Your task to perform on an android device: turn on wifi Image 0: 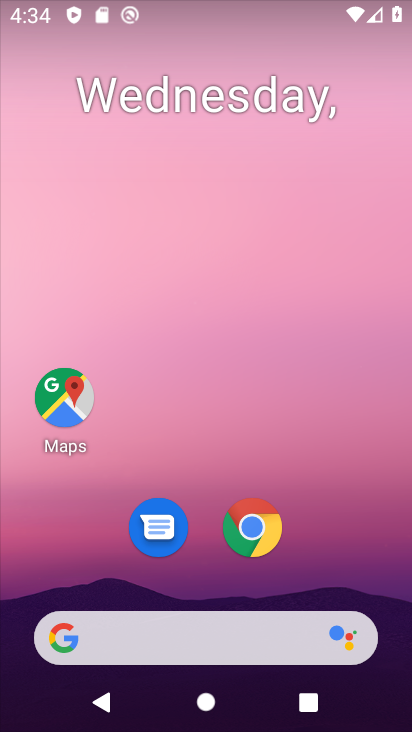
Step 0: press home button
Your task to perform on an android device: turn on wifi Image 1: 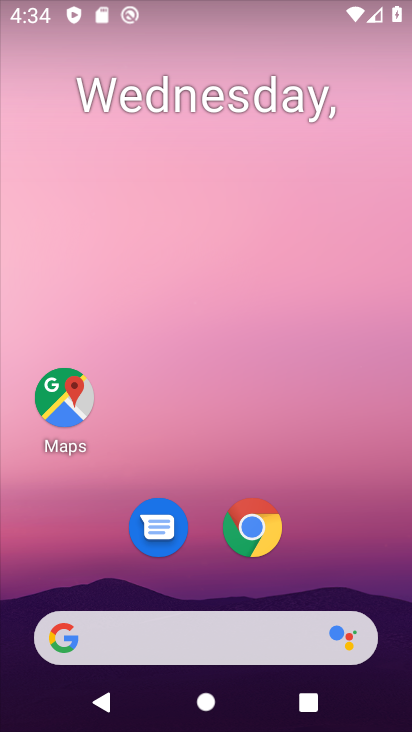
Step 1: drag from (147, 597) to (212, 134)
Your task to perform on an android device: turn on wifi Image 2: 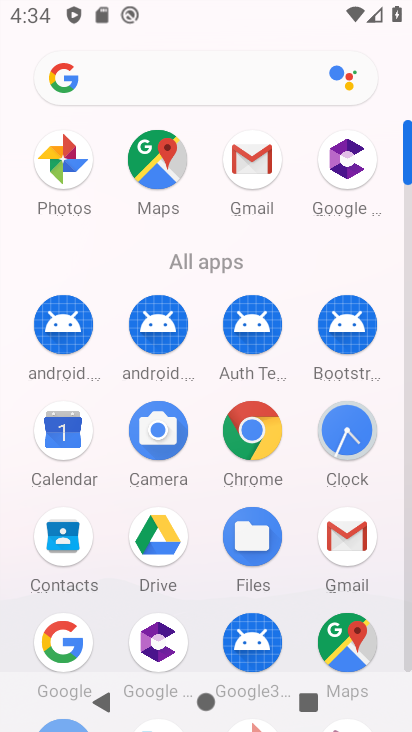
Step 2: drag from (252, 508) to (271, 359)
Your task to perform on an android device: turn on wifi Image 3: 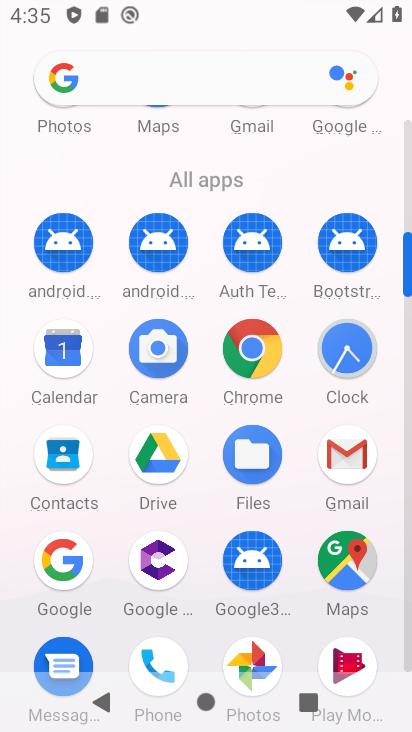
Step 3: drag from (277, 480) to (320, 146)
Your task to perform on an android device: turn on wifi Image 4: 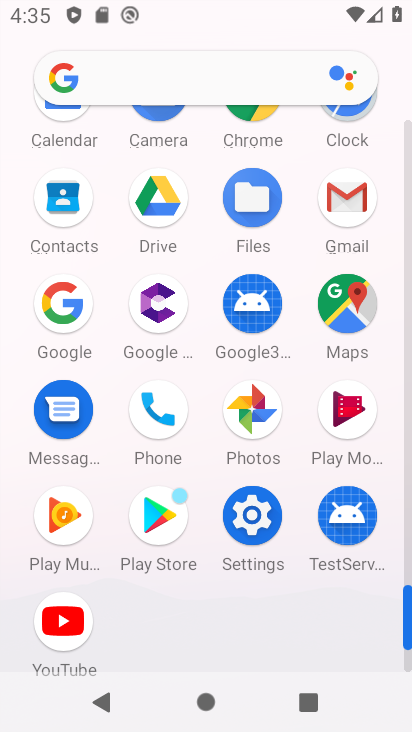
Step 4: click (251, 534)
Your task to perform on an android device: turn on wifi Image 5: 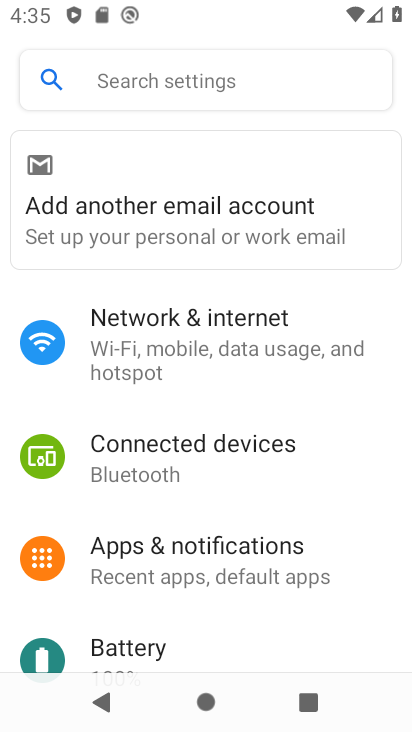
Step 5: click (207, 357)
Your task to perform on an android device: turn on wifi Image 6: 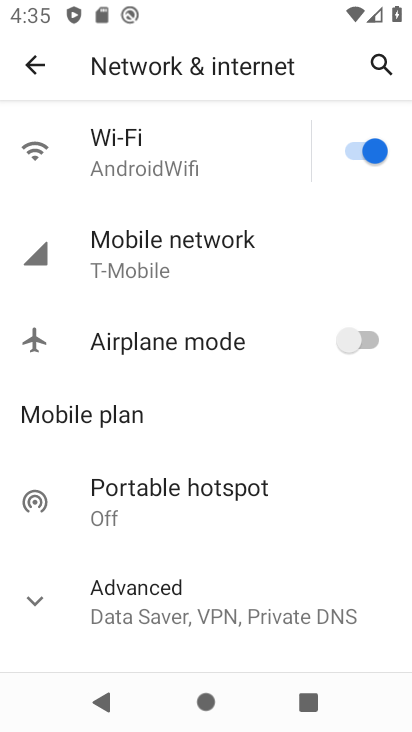
Step 6: task complete